Your task to perform on an android device: open app "Gmail" (install if not already installed) Image 0: 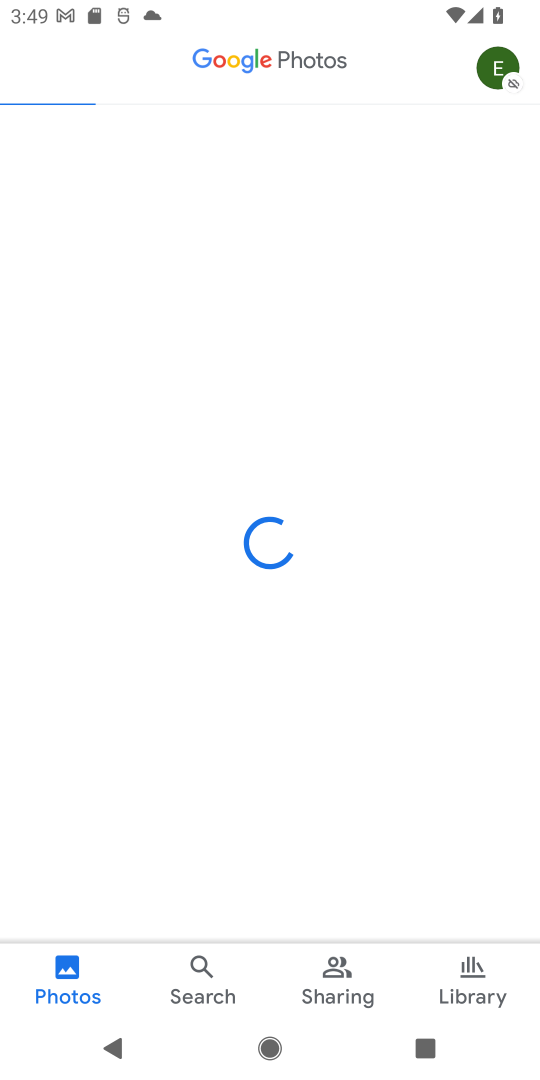
Step 0: press back button
Your task to perform on an android device: open app "Gmail" (install if not already installed) Image 1: 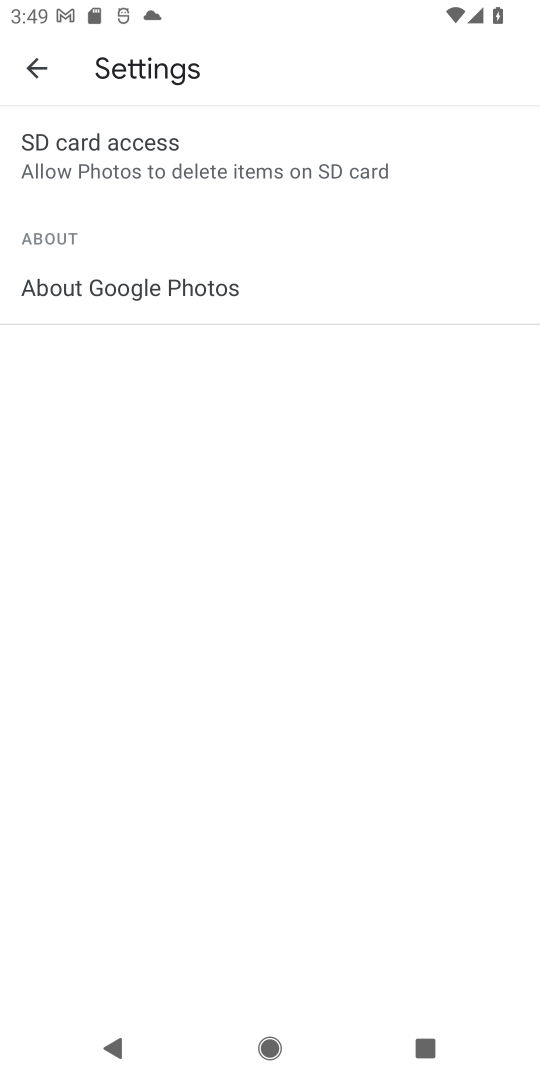
Step 1: press back button
Your task to perform on an android device: open app "Gmail" (install if not already installed) Image 2: 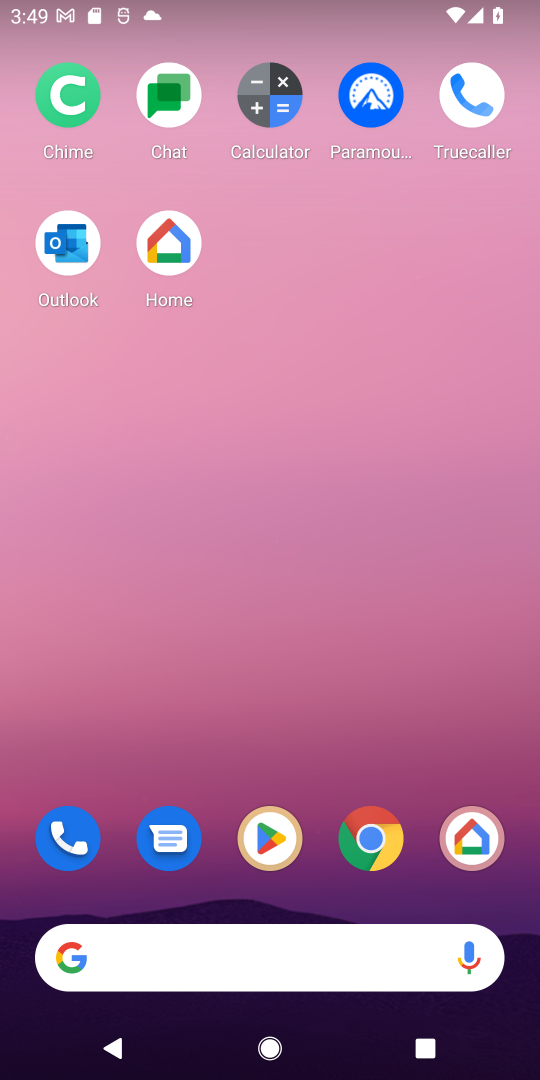
Step 2: click (273, 833)
Your task to perform on an android device: open app "Gmail" (install if not already installed) Image 3: 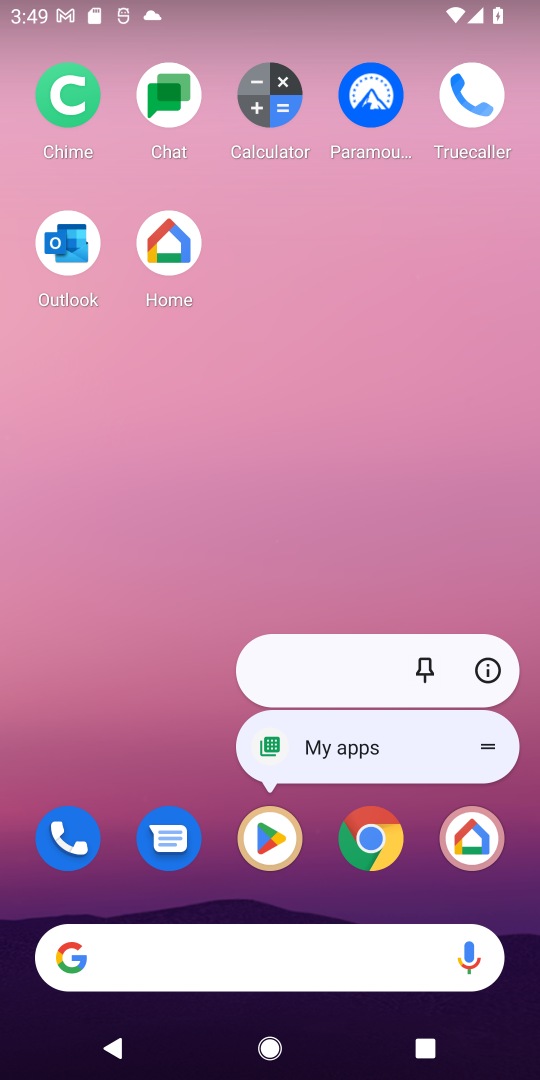
Step 3: click (272, 832)
Your task to perform on an android device: open app "Gmail" (install if not already installed) Image 4: 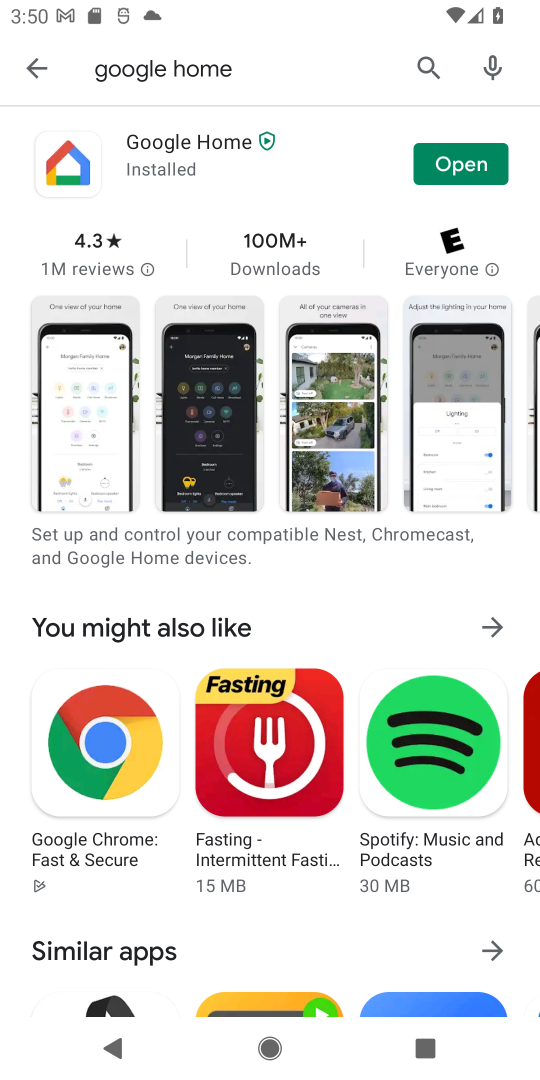
Step 4: click (444, 59)
Your task to perform on an android device: open app "Gmail" (install if not already installed) Image 5: 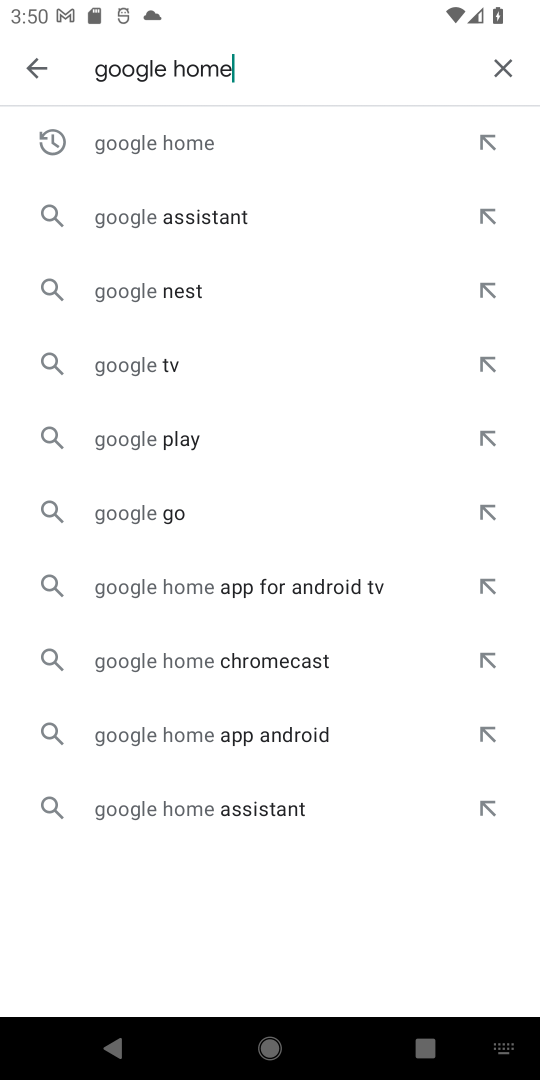
Step 5: click (513, 63)
Your task to perform on an android device: open app "Gmail" (install if not already installed) Image 6: 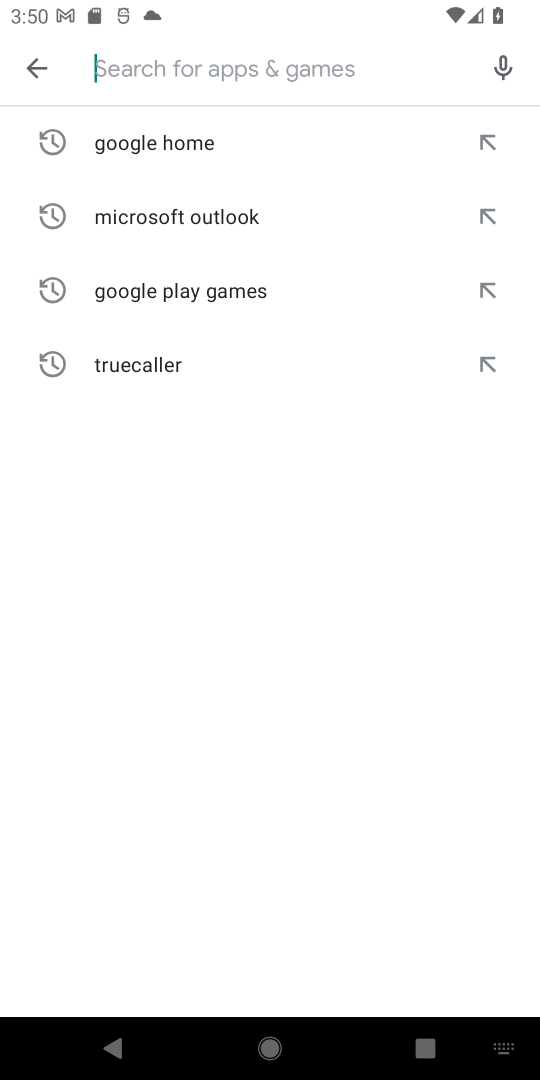
Step 6: type "gmail"
Your task to perform on an android device: open app "Gmail" (install if not already installed) Image 7: 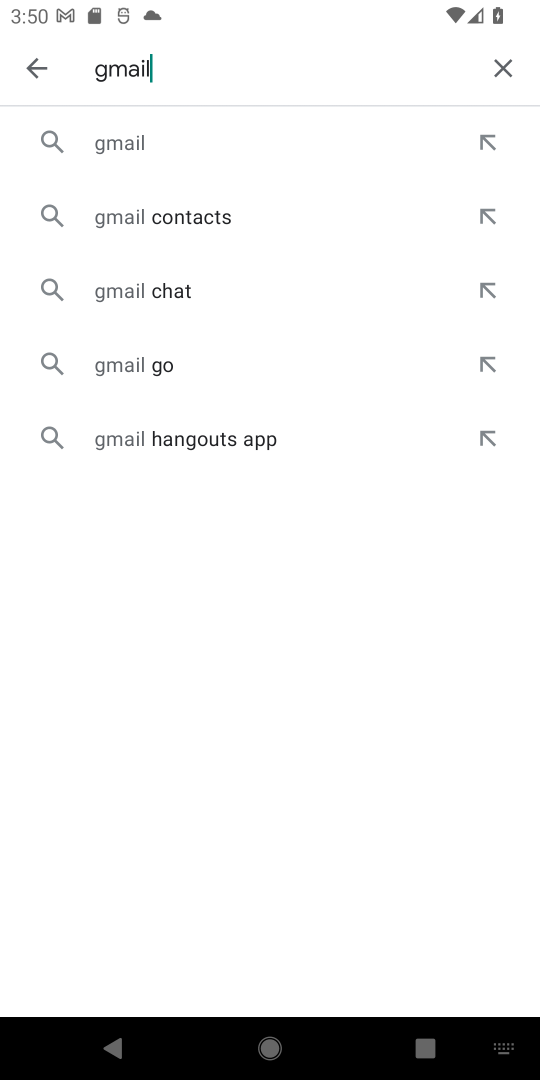
Step 7: click (152, 141)
Your task to perform on an android device: open app "Gmail" (install if not already installed) Image 8: 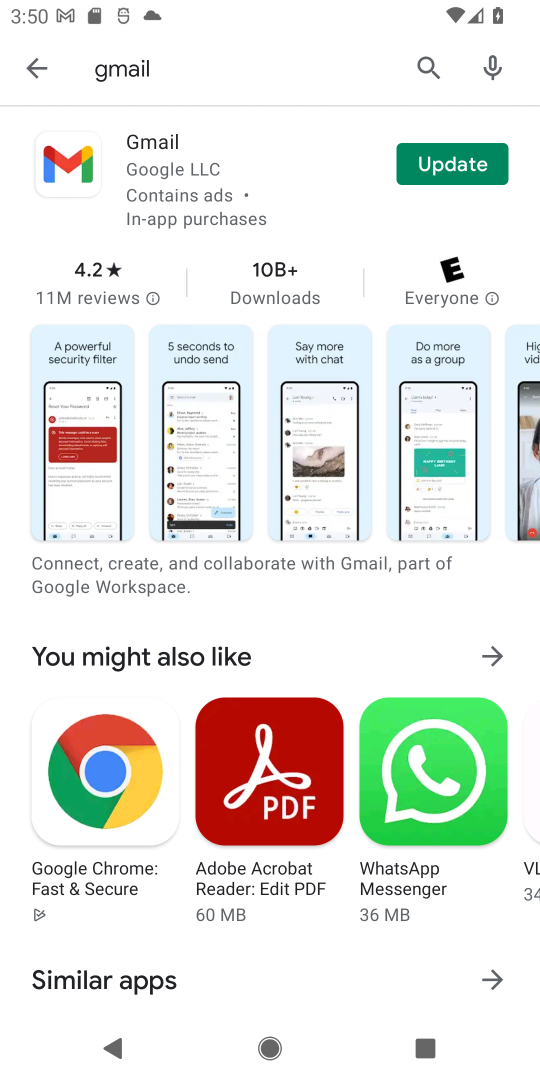
Step 8: click (192, 162)
Your task to perform on an android device: open app "Gmail" (install if not already installed) Image 9: 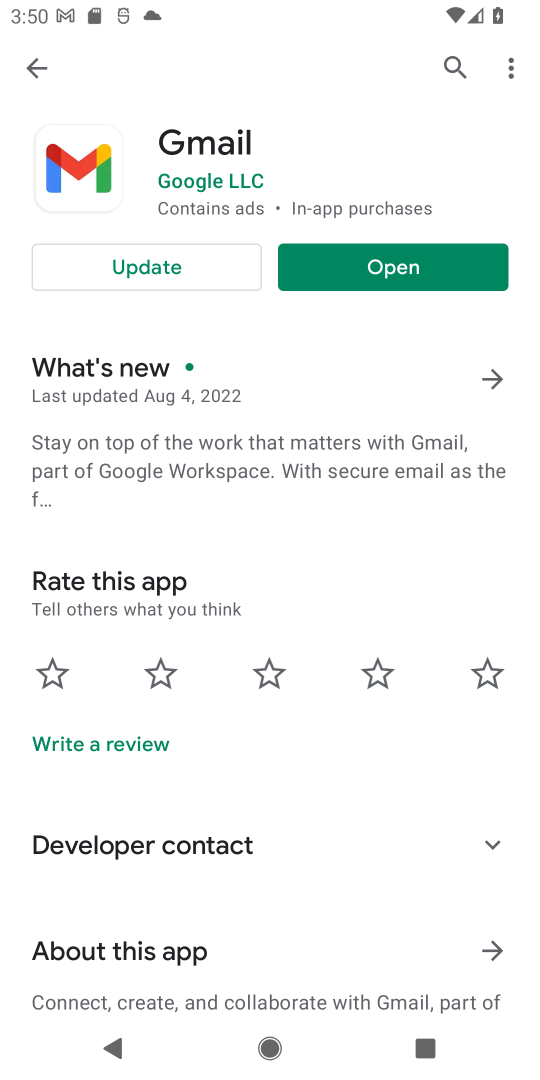
Step 9: click (435, 269)
Your task to perform on an android device: open app "Gmail" (install if not already installed) Image 10: 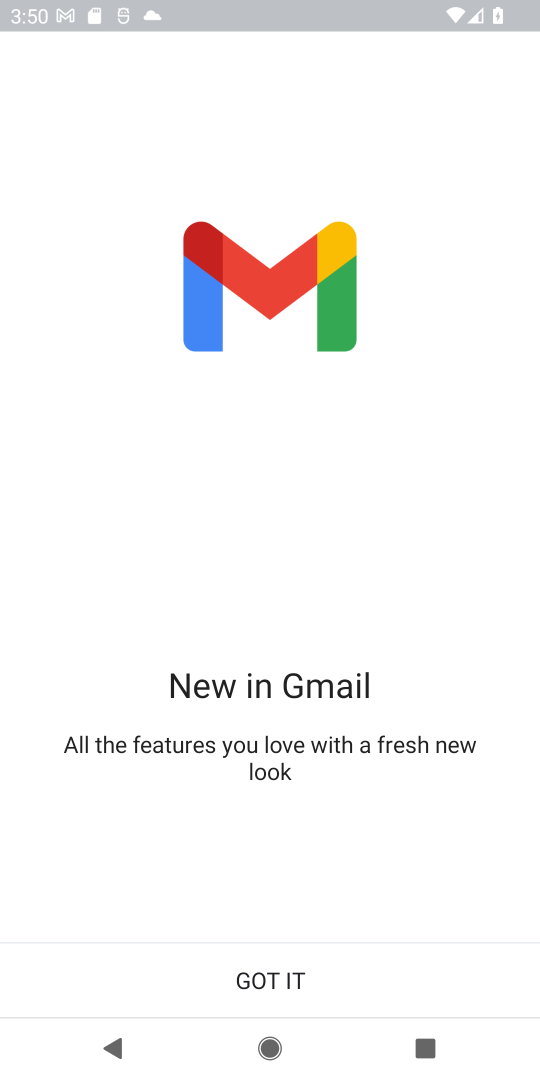
Step 10: task complete